Your task to perform on an android device: turn on wifi Image 0: 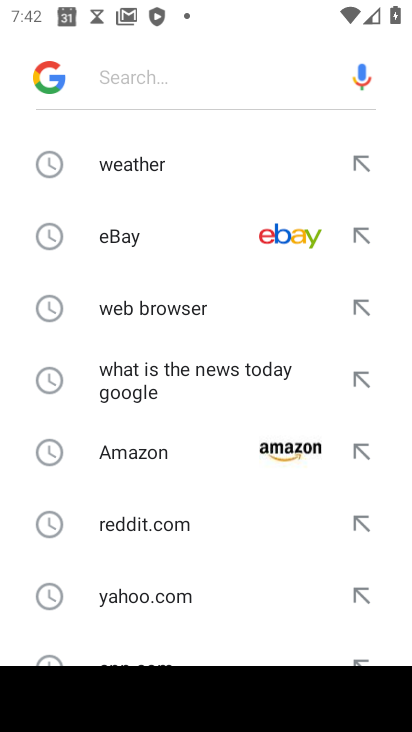
Step 0: press home button
Your task to perform on an android device: turn on wifi Image 1: 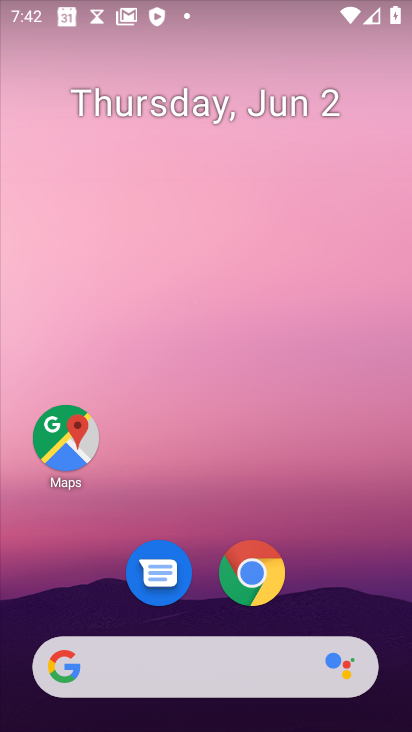
Step 1: drag from (180, 667) to (325, 95)
Your task to perform on an android device: turn on wifi Image 2: 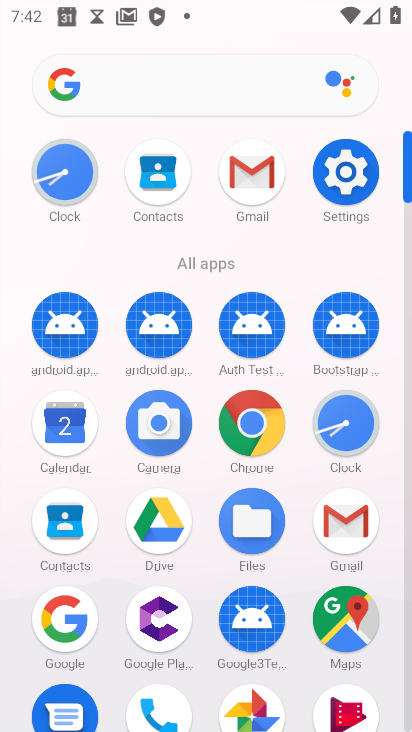
Step 2: click (341, 173)
Your task to perform on an android device: turn on wifi Image 3: 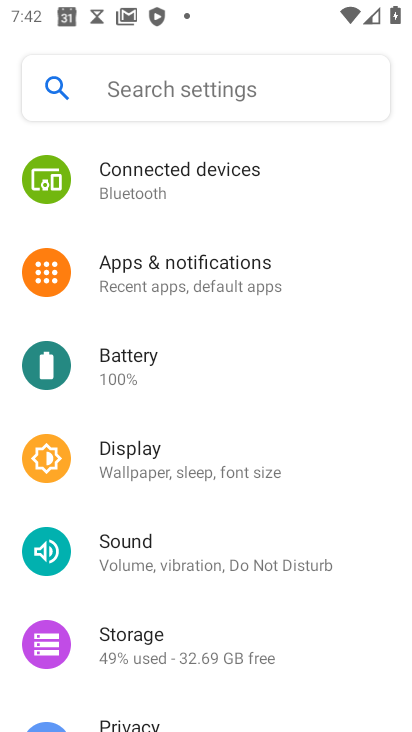
Step 3: drag from (312, 206) to (235, 501)
Your task to perform on an android device: turn on wifi Image 4: 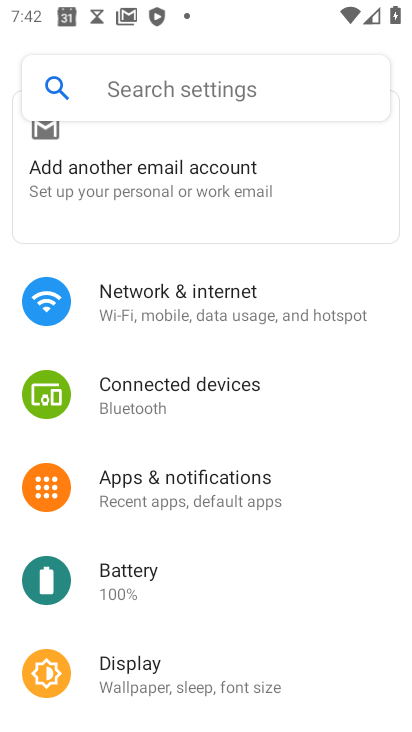
Step 4: click (190, 294)
Your task to perform on an android device: turn on wifi Image 5: 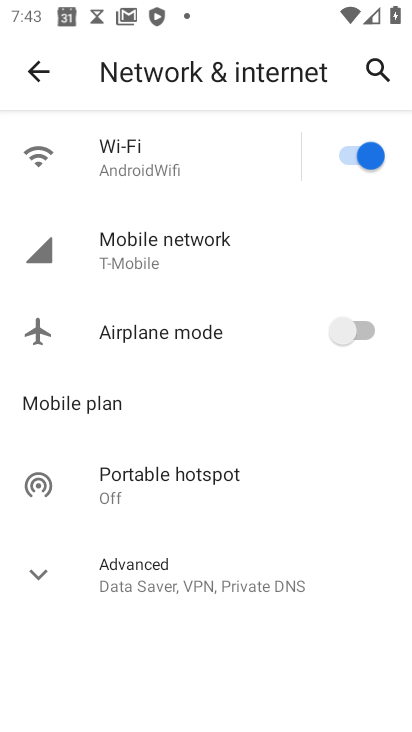
Step 5: task complete